Your task to perform on an android device: Open Google Chrome Image 0: 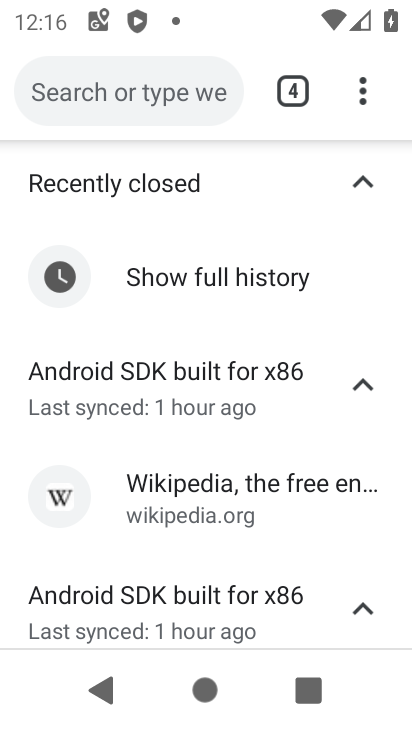
Step 0: press home button
Your task to perform on an android device: Open Google Chrome Image 1: 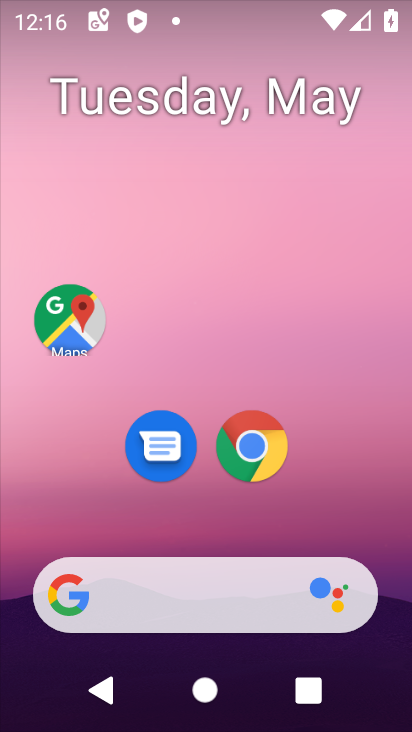
Step 1: drag from (339, 474) to (325, 241)
Your task to perform on an android device: Open Google Chrome Image 2: 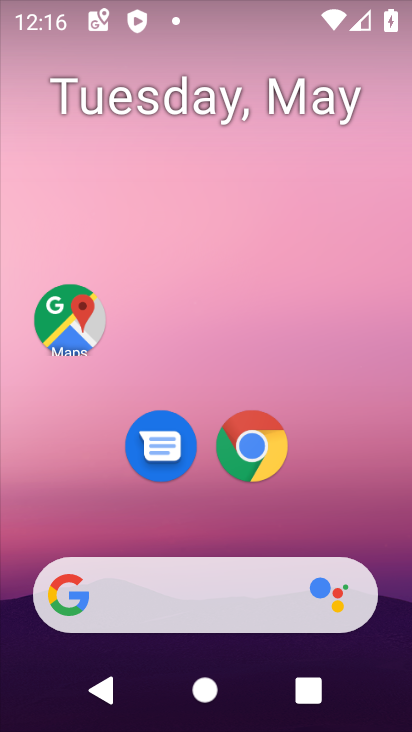
Step 2: drag from (373, 430) to (412, 68)
Your task to perform on an android device: Open Google Chrome Image 3: 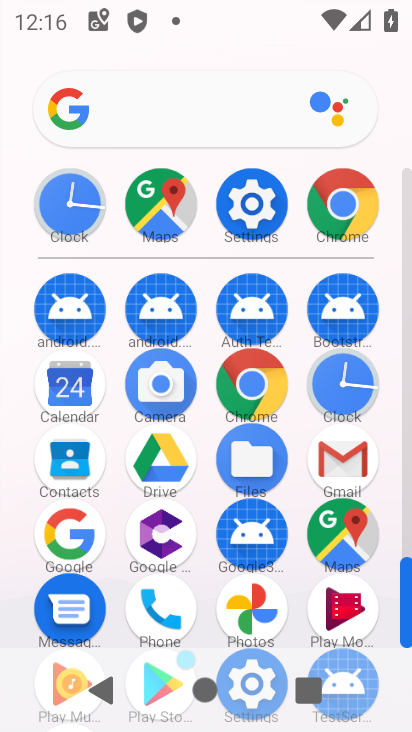
Step 3: drag from (398, 518) to (409, 167)
Your task to perform on an android device: Open Google Chrome Image 4: 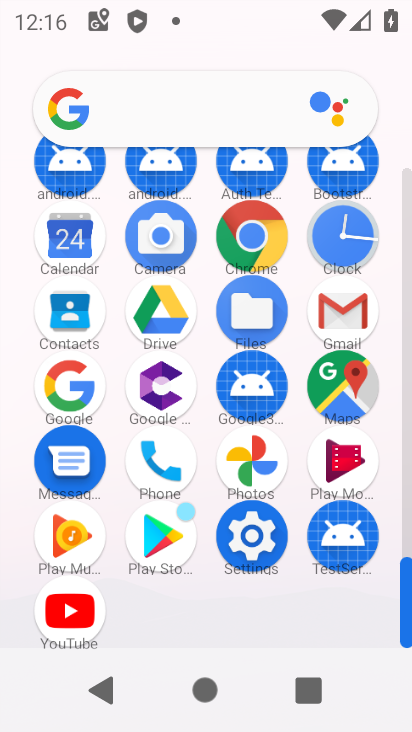
Step 4: click (51, 495)
Your task to perform on an android device: Open Google Chrome Image 5: 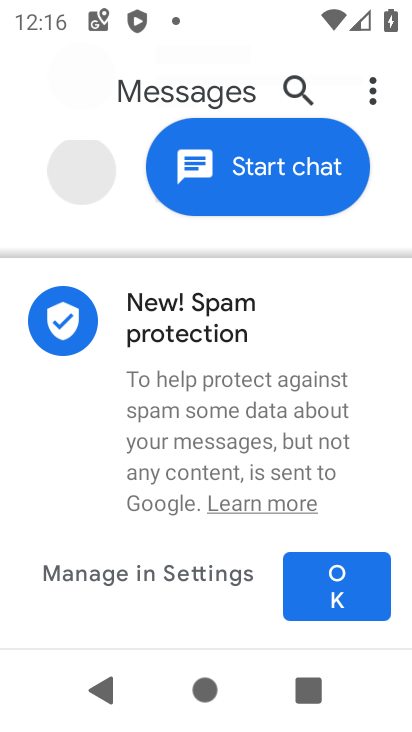
Step 5: task complete